Your task to perform on an android device: Open Yahoo.com Image 0: 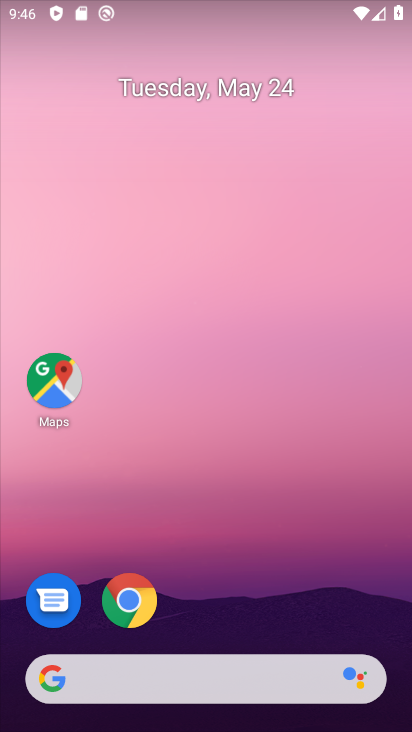
Step 0: click (129, 615)
Your task to perform on an android device: Open Yahoo.com Image 1: 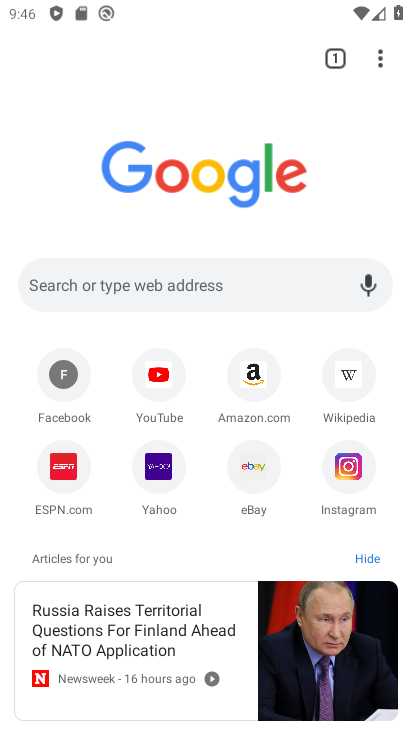
Step 1: click (161, 484)
Your task to perform on an android device: Open Yahoo.com Image 2: 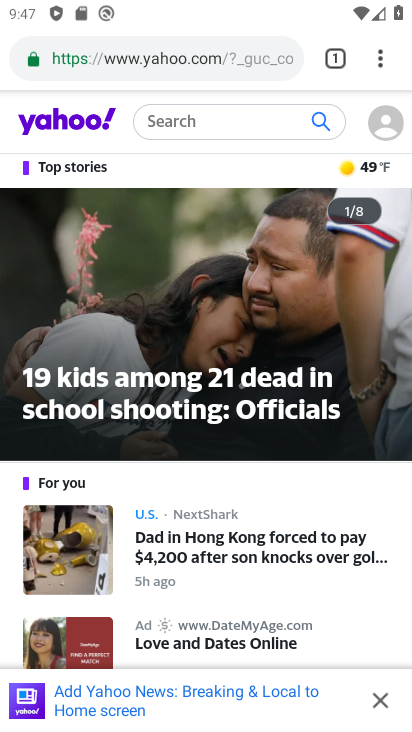
Step 2: task complete